Your task to perform on an android device: Open Reddit.com Image 0: 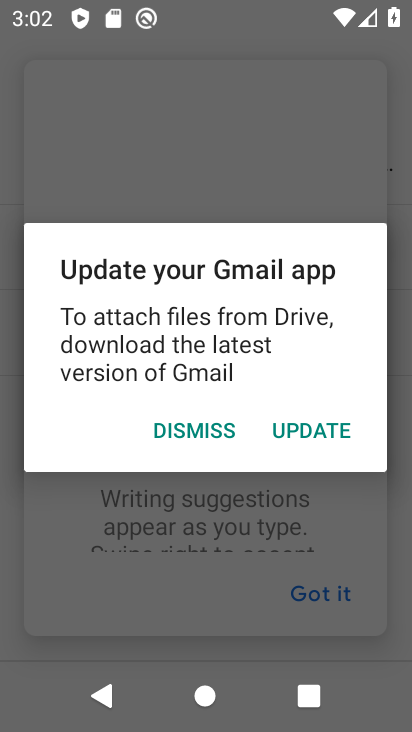
Step 0: click (206, 428)
Your task to perform on an android device: Open Reddit.com Image 1: 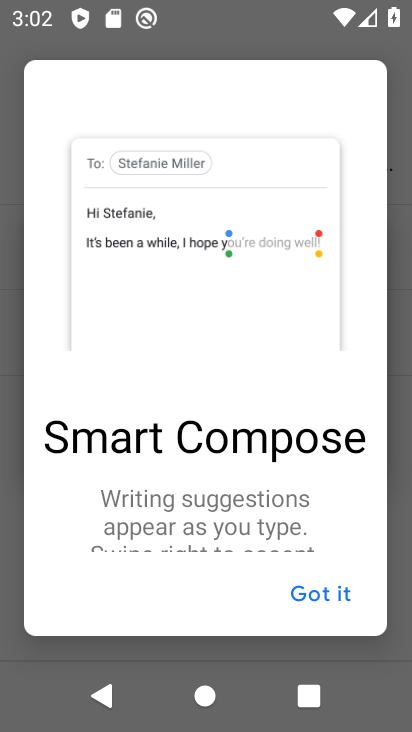
Step 1: press home button
Your task to perform on an android device: Open Reddit.com Image 2: 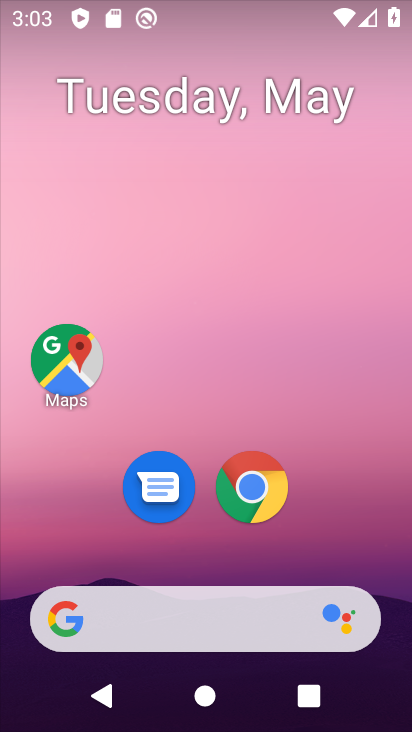
Step 2: click (245, 495)
Your task to perform on an android device: Open Reddit.com Image 3: 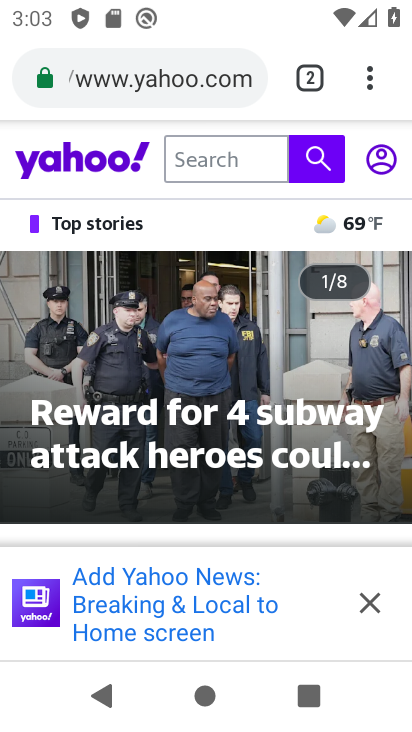
Step 3: click (316, 70)
Your task to perform on an android device: Open Reddit.com Image 4: 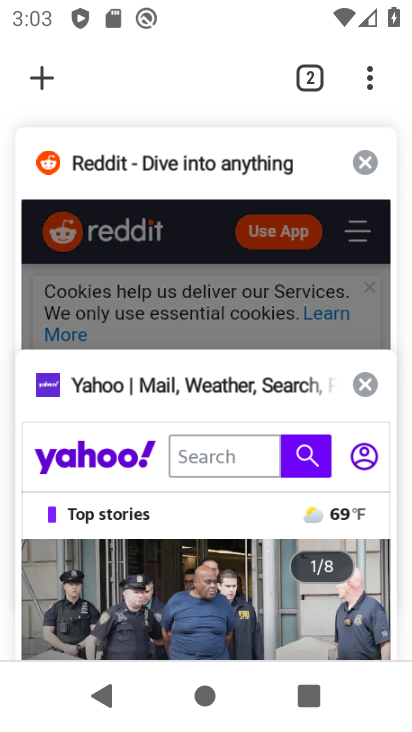
Step 4: click (144, 220)
Your task to perform on an android device: Open Reddit.com Image 5: 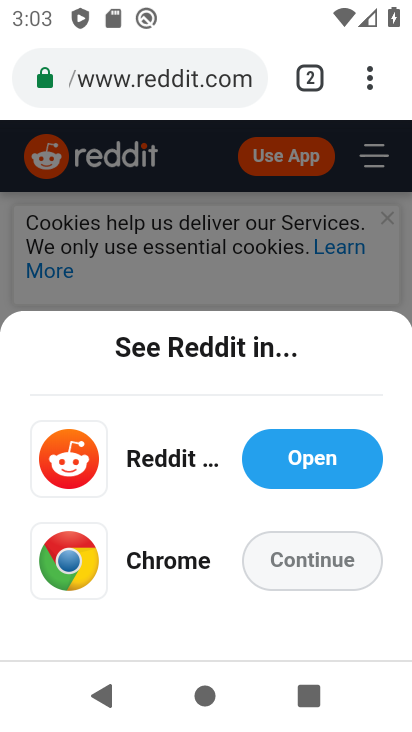
Step 5: click (283, 563)
Your task to perform on an android device: Open Reddit.com Image 6: 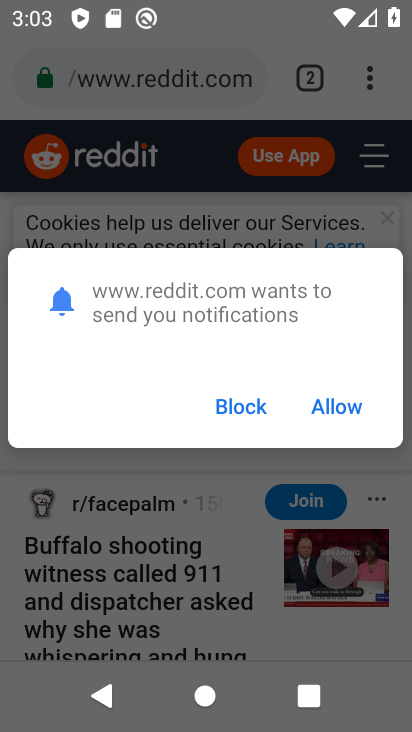
Step 6: click (323, 396)
Your task to perform on an android device: Open Reddit.com Image 7: 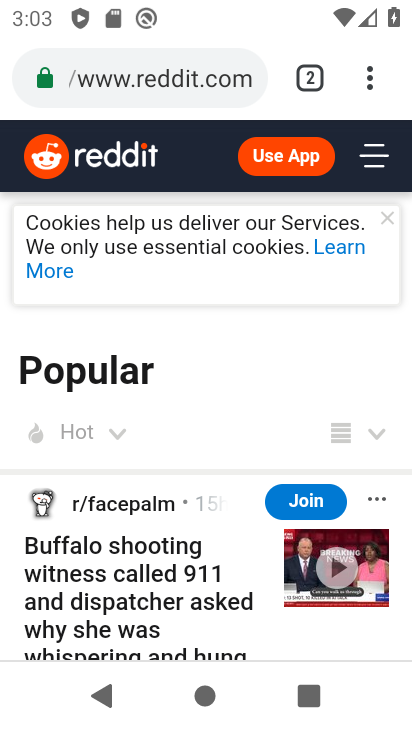
Step 7: task complete